Your task to perform on an android device: Open sound settings Image 0: 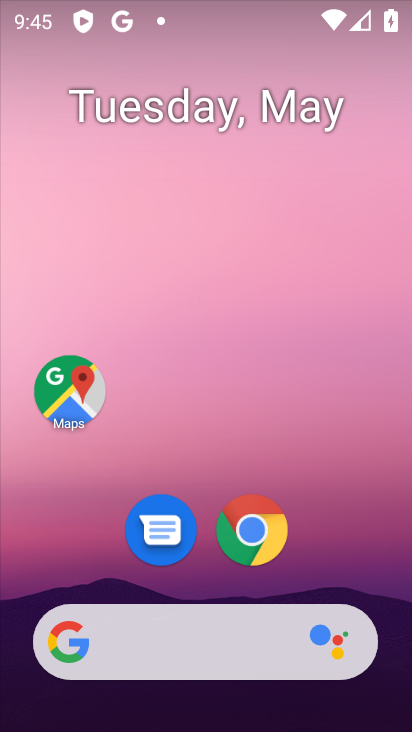
Step 0: drag from (240, 395) to (267, 155)
Your task to perform on an android device: Open sound settings Image 1: 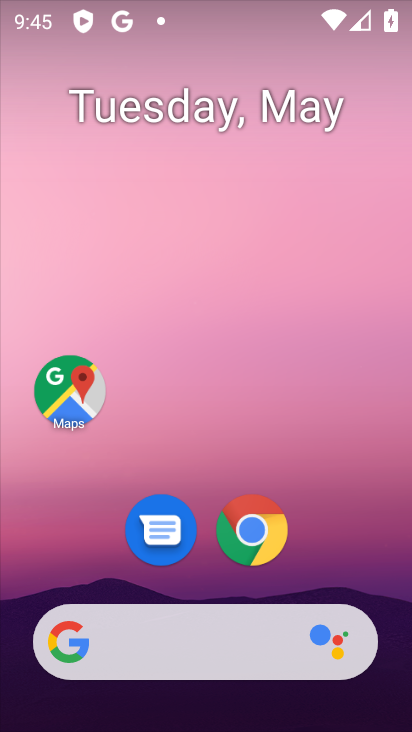
Step 1: drag from (195, 572) to (263, 129)
Your task to perform on an android device: Open sound settings Image 2: 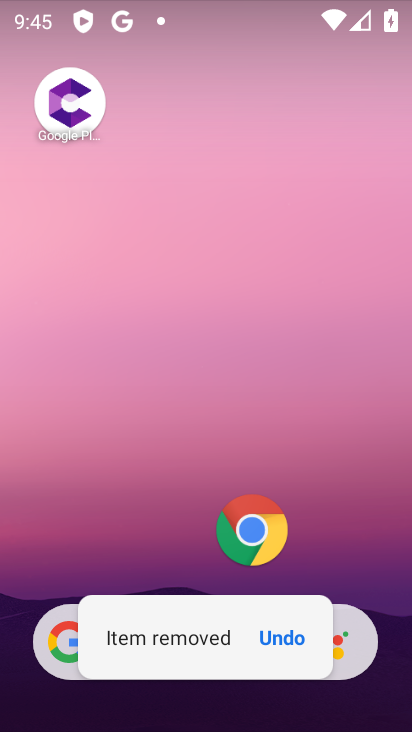
Step 2: click (169, 560)
Your task to perform on an android device: Open sound settings Image 3: 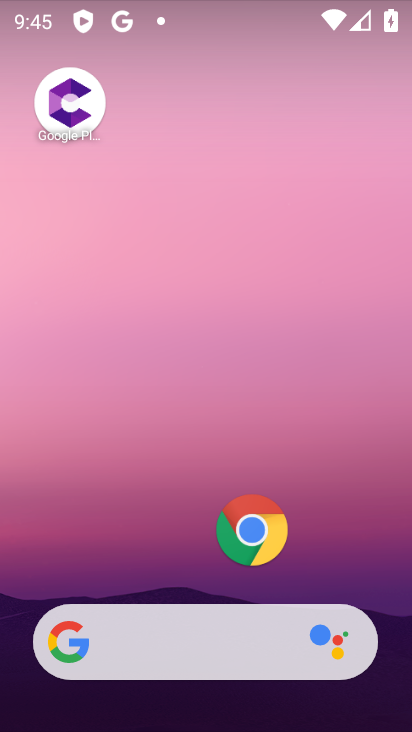
Step 3: drag from (170, 550) to (243, 143)
Your task to perform on an android device: Open sound settings Image 4: 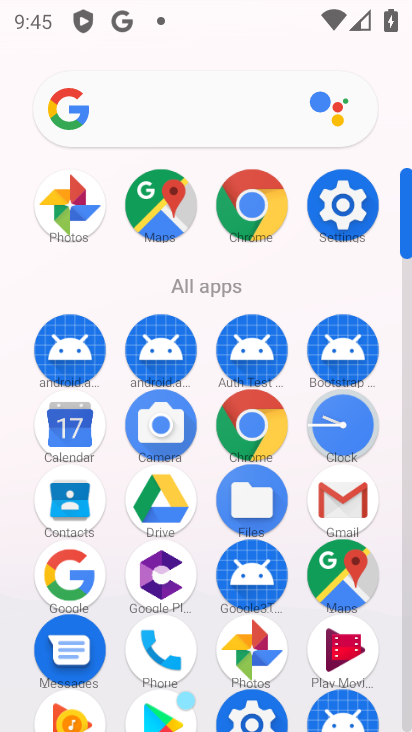
Step 4: click (346, 201)
Your task to perform on an android device: Open sound settings Image 5: 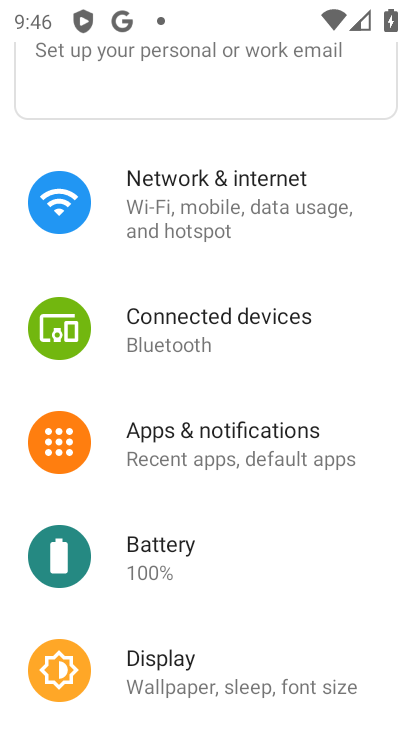
Step 5: drag from (192, 517) to (246, 218)
Your task to perform on an android device: Open sound settings Image 6: 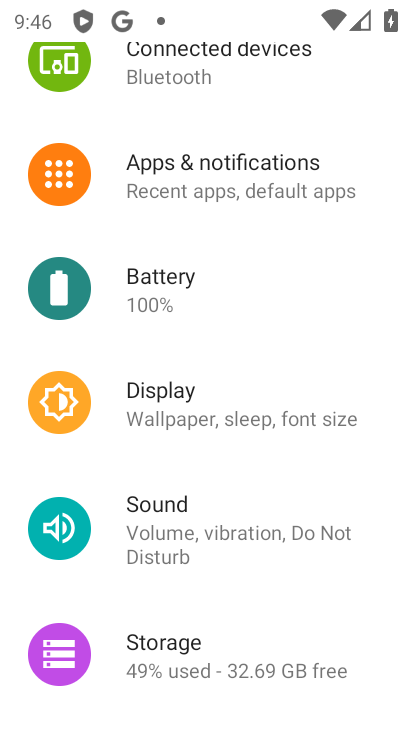
Step 6: click (200, 535)
Your task to perform on an android device: Open sound settings Image 7: 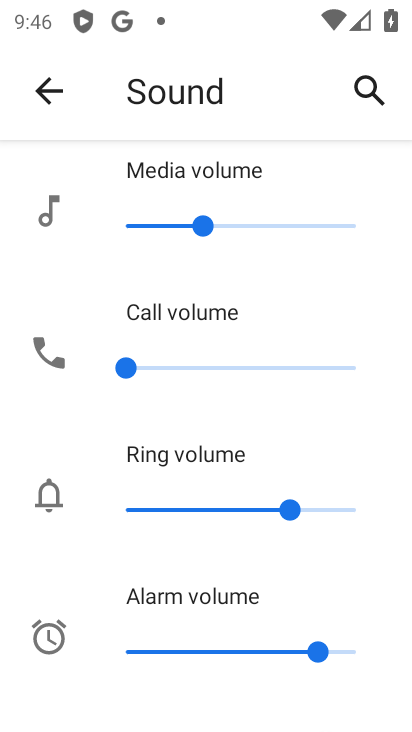
Step 7: task complete